Your task to perform on an android device: turn off location Image 0: 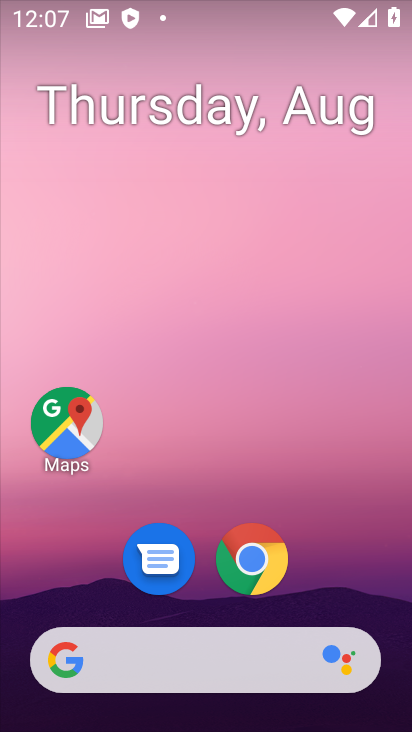
Step 0: press home button
Your task to perform on an android device: turn off location Image 1: 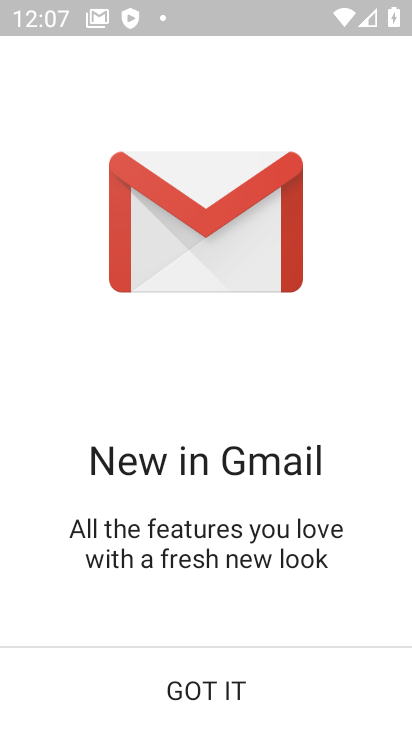
Step 1: drag from (215, 450) to (260, 34)
Your task to perform on an android device: turn off location Image 2: 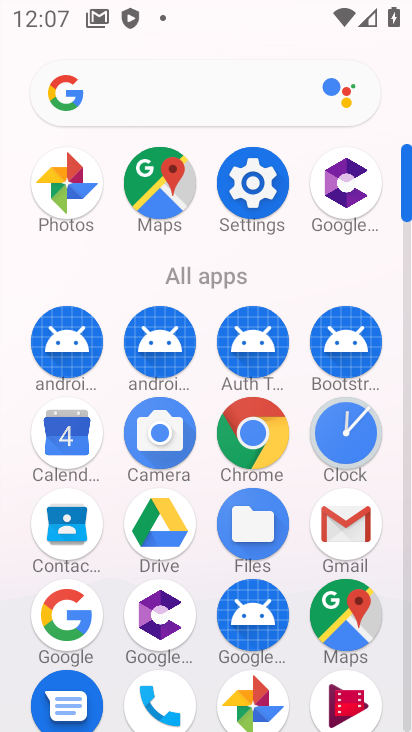
Step 2: click (254, 177)
Your task to perform on an android device: turn off location Image 3: 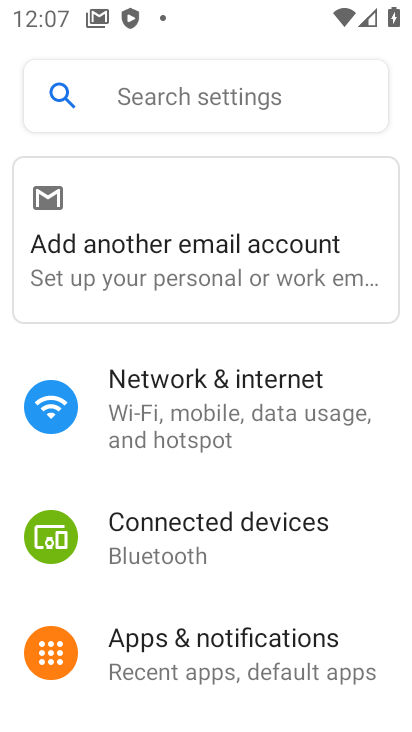
Step 3: drag from (80, 684) to (145, 69)
Your task to perform on an android device: turn off location Image 4: 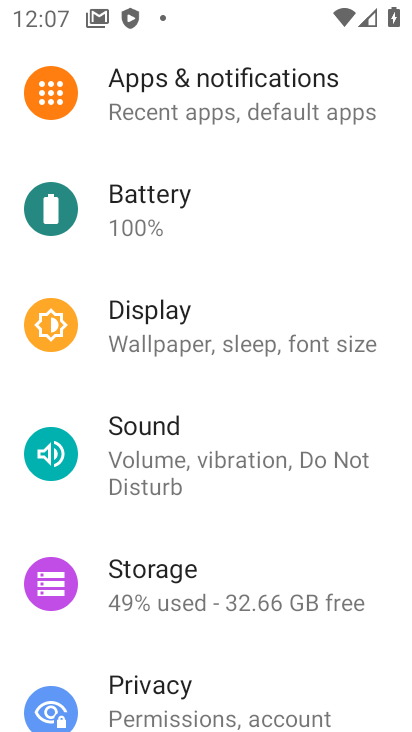
Step 4: drag from (217, 679) to (227, 114)
Your task to perform on an android device: turn off location Image 5: 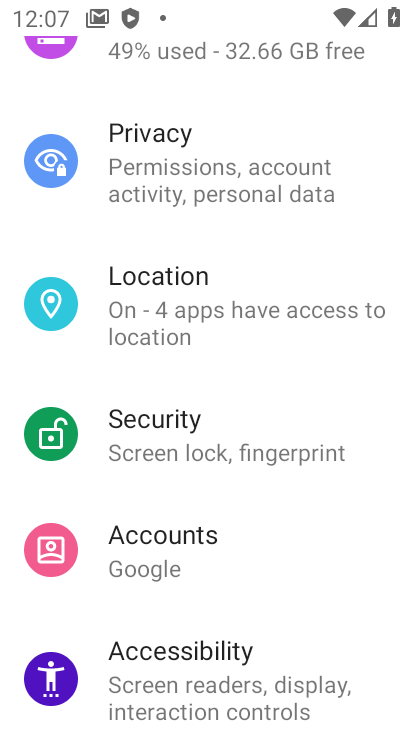
Step 5: click (210, 286)
Your task to perform on an android device: turn off location Image 6: 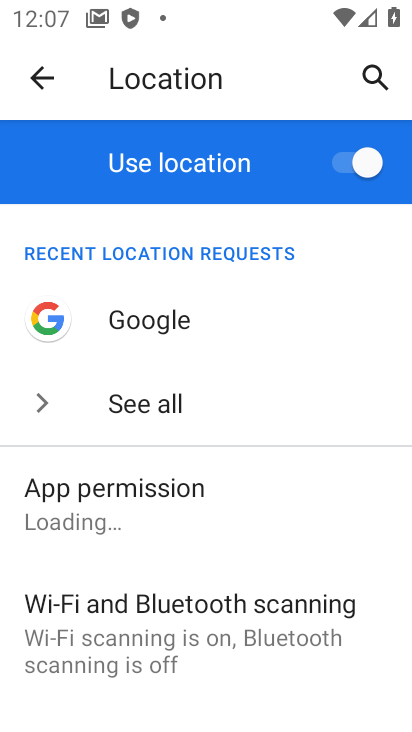
Step 6: click (344, 154)
Your task to perform on an android device: turn off location Image 7: 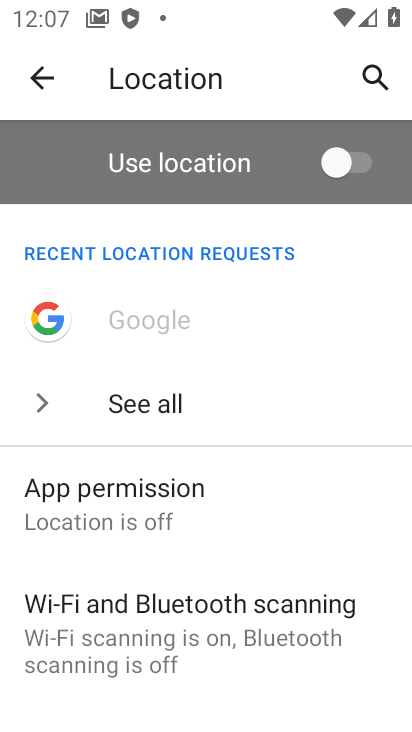
Step 7: task complete